Your task to perform on an android device: Go to Google maps Image 0: 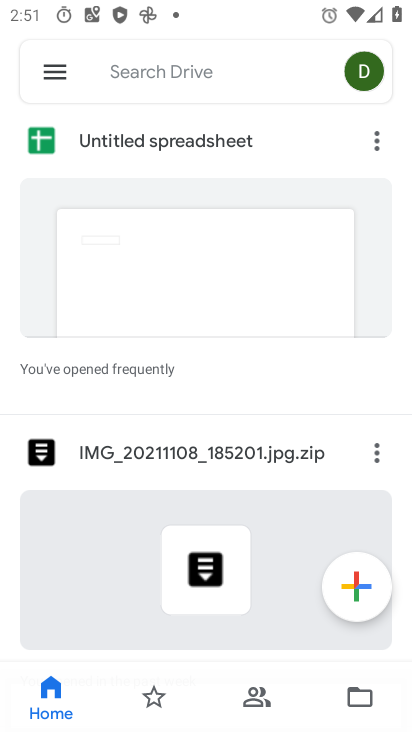
Step 0: press home button
Your task to perform on an android device: Go to Google maps Image 1: 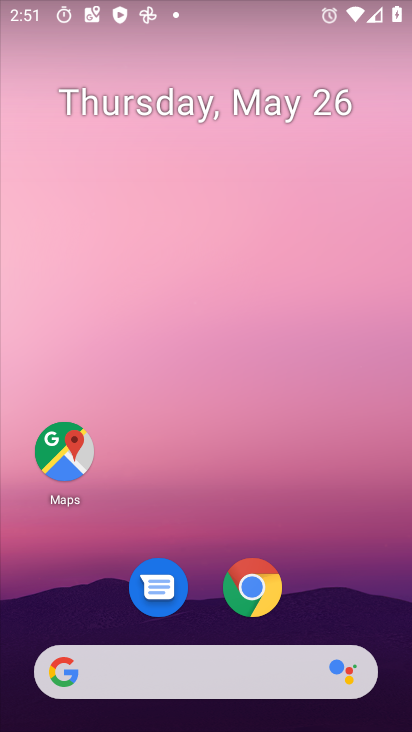
Step 1: drag from (368, 601) to (373, 163)
Your task to perform on an android device: Go to Google maps Image 2: 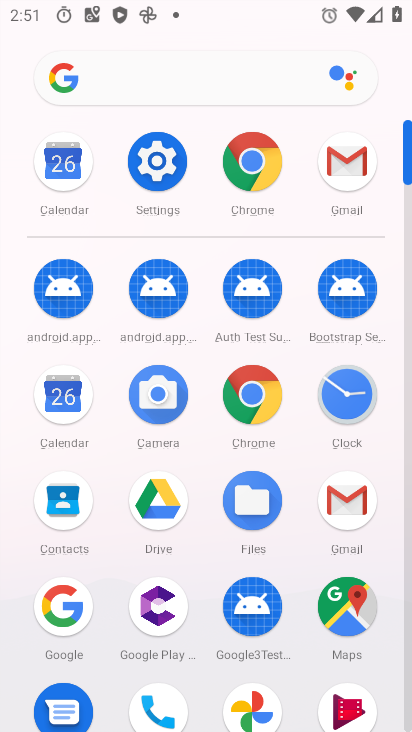
Step 2: drag from (297, 556) to (305, 198)
Your task to perform on an android device: Go to Google maps Image 3: 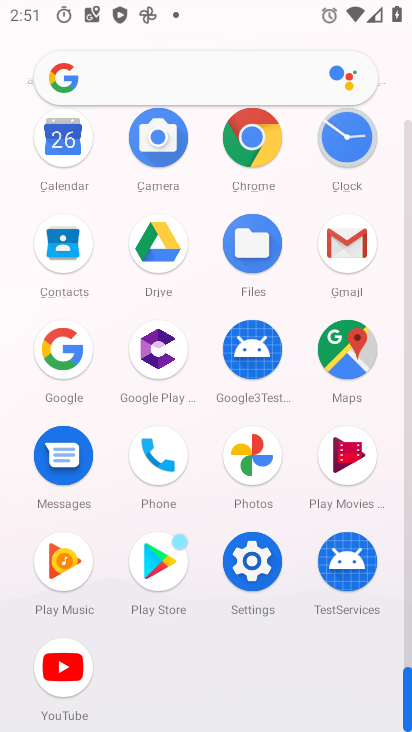
Step 3: click (345, 361)
Your task to perform on an android device: Go to Google maps Image 4: 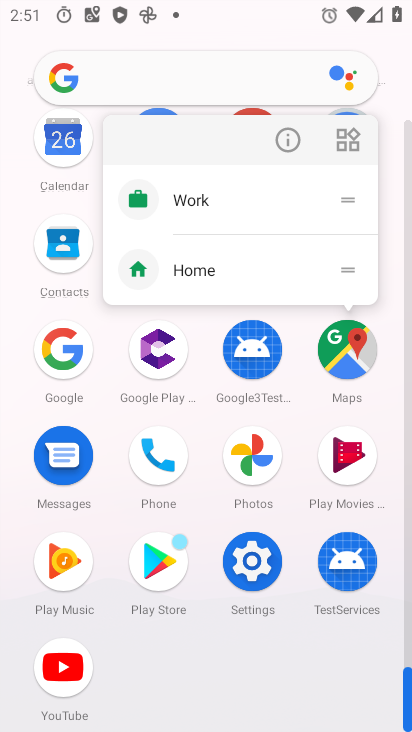
Step 4: click (345, 361)
Your task to perform on an android device: Go to Google maps Image 5: 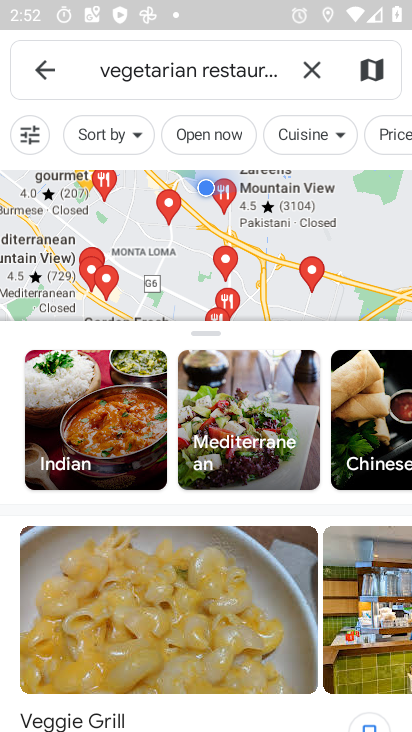
Step 5: task complete